Your task to perform on an android device: Open the calendar app, open the side menu, and click the "Day" option Image 0: 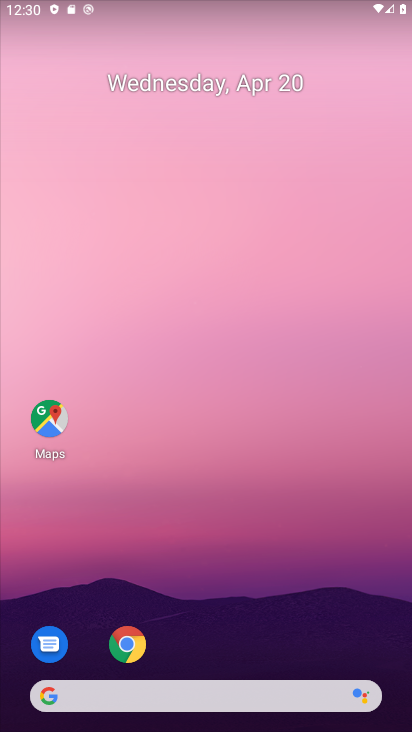
Step 0: drag from (295, 633) to (229, 0)
Your task to perform on an android device: Open the calendar app, open the side menu, and click the "Day" option Image 1: 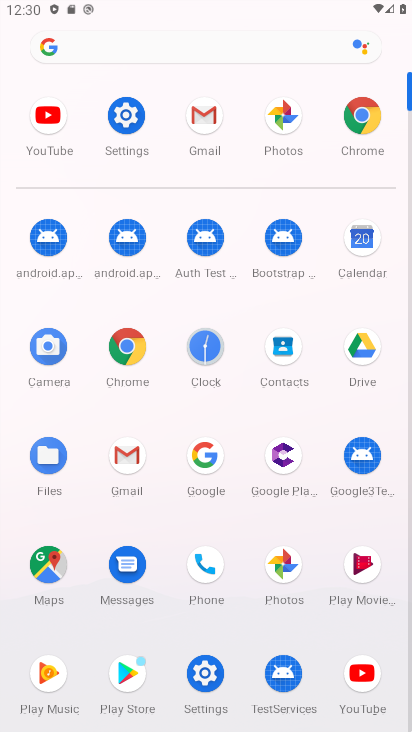
Step 1: click (365, 245)
Your task to perform on an android device: Open the calendar app, open the side menu, and click the "Day" option Image 2: 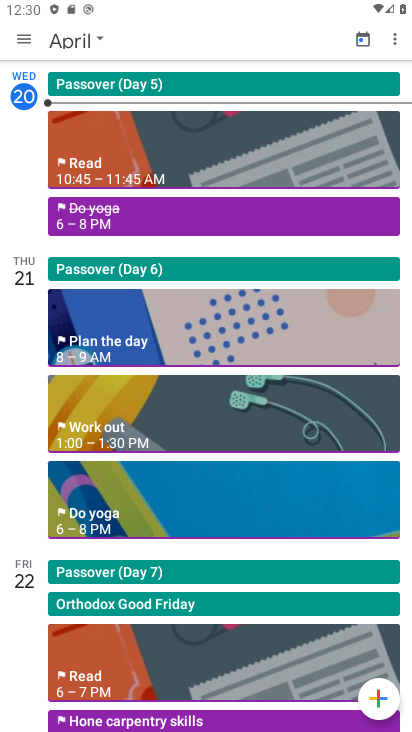
Step 2: click (19, 36)
Your task to perform on an android device: Open the calendar app, open the side menu, and click the "Day" option Image 3: 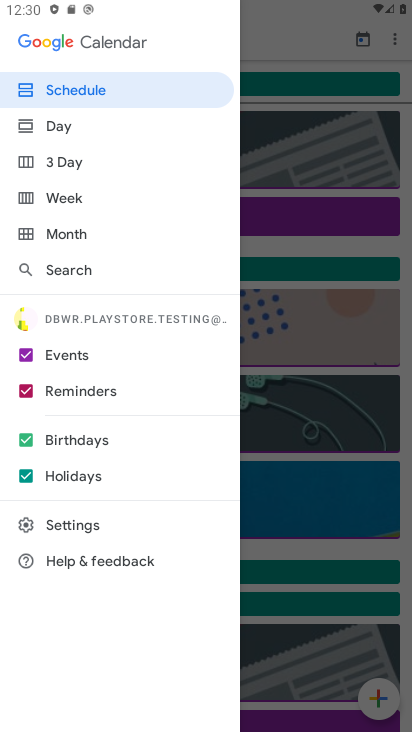
Step 3: click (43, 114)
Your task to perform on an android device: Open the calendar app, open the side menu, and click the "Day" option Image 4: 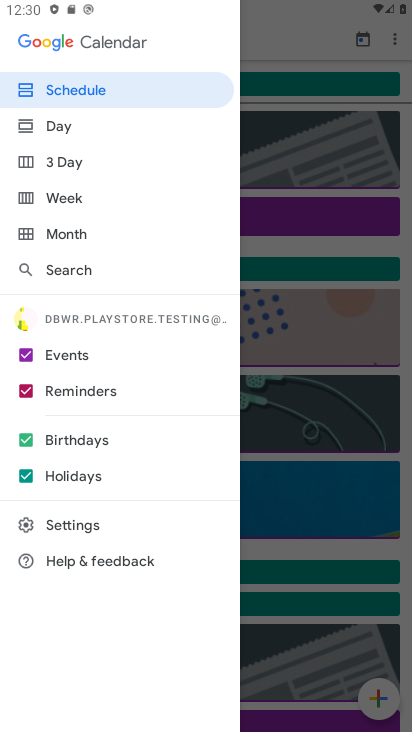
Step 4: click (52, 124)
Your task to perform on an android device: Open the calendar app, open the side menu, and click the "Day" option Image 5: 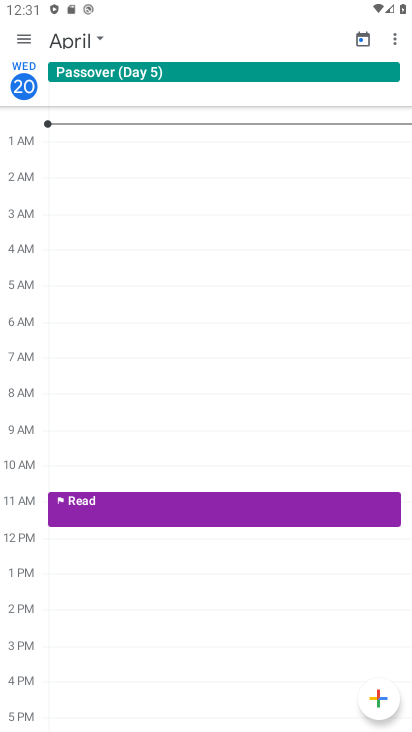
Step 5: task complete